Your task to perform on an android device: empty trash in the gmail app Image 0: 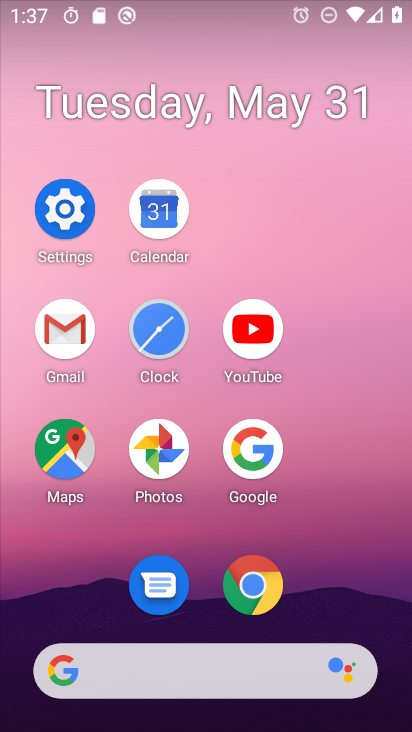
Step 0: click (51, 328)
Your task to perform on an android device: empty trash in the gmail app Image 1: 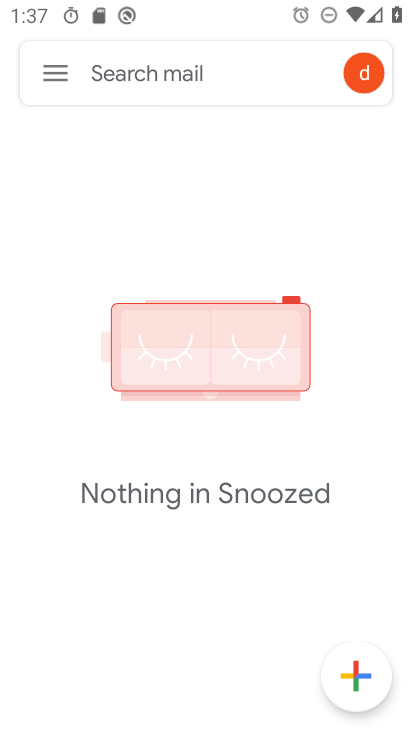
Step 1: click (52, 92)
Your task to perform on an android device: empty trash in the gmail app Image 2: 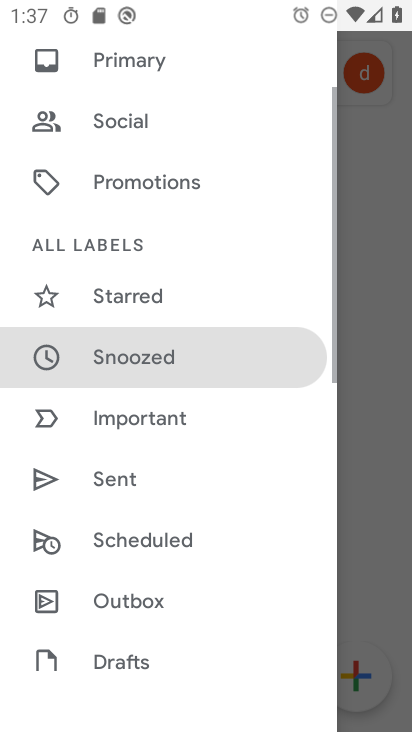
Step 2: drag from (167, 636) to (176, 92)
Your task to perform on an android device: empty trash in the gmail app Image 3: 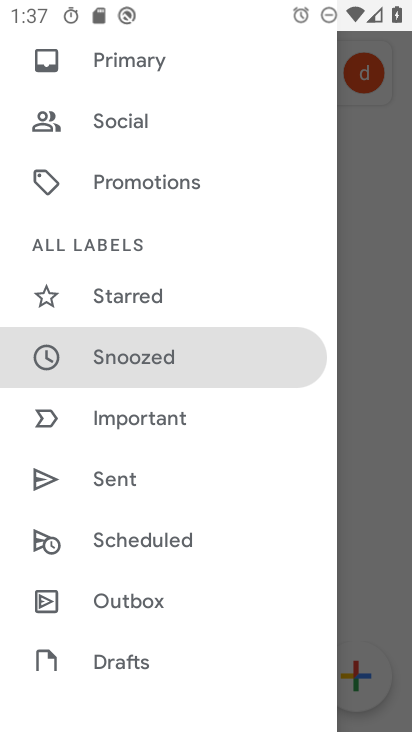
Step 3: drag from (185, 538) to (192, 150)
Your task to perform on an android device: empty trash in the gmail app Image 4: 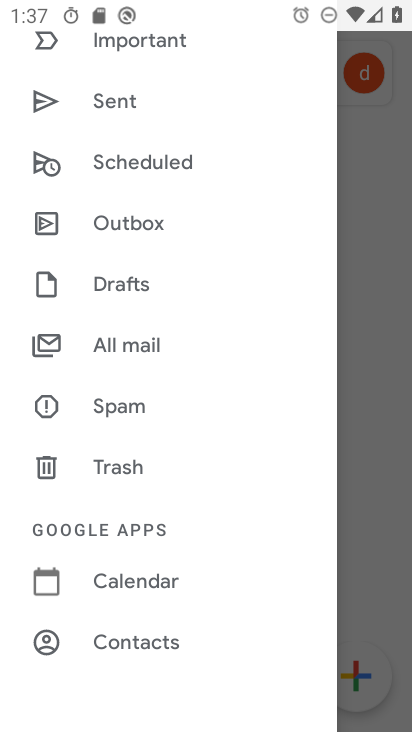
Step 4: click (158, 480)
Your task to perform on an android device: empty trash in the gmail app Image 5: 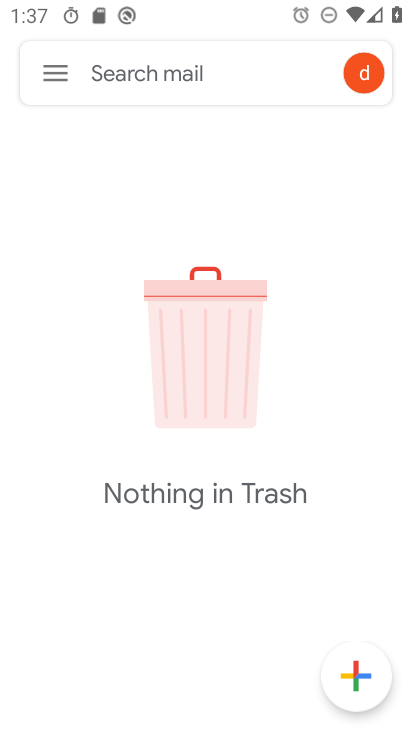
Step 5: task complete